Your task to perform on an android device: add a label to a message in the gmail app Image 0: 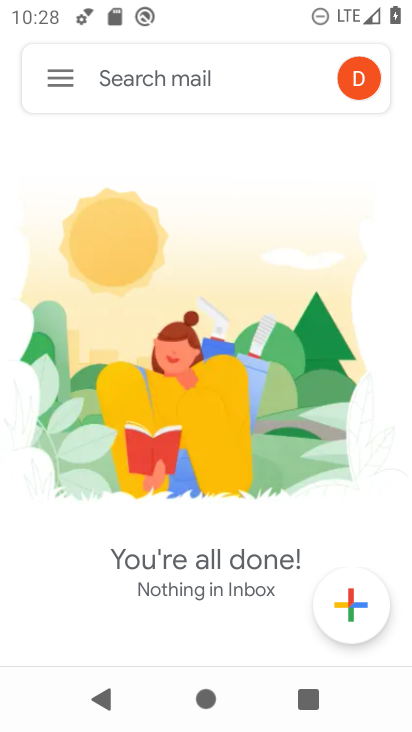
Step 0: click (76, 83)
Your task to perform on an android device: add a label to a message in the gmail app Image 1: 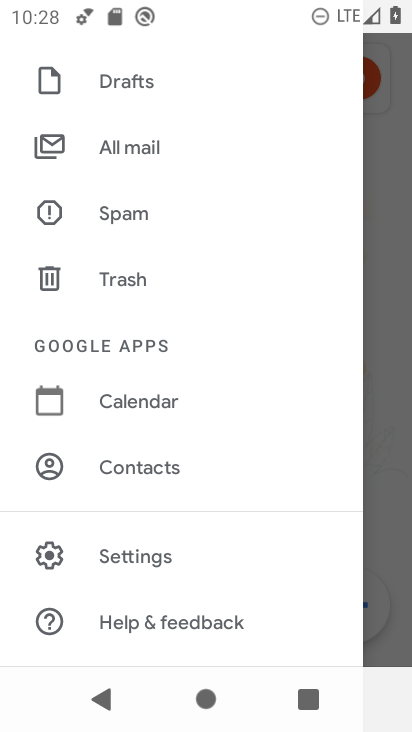
Step 1: click (120, 135)
Your task to perform on an android device: add a label to a message in the gmail app Image 2: 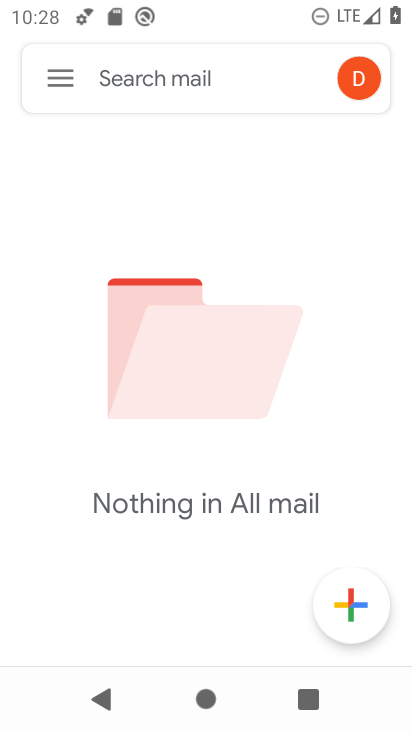
Step 2: click (51, 78)
Your task to perform on an android device: add a label to a message in the gmail app Image 3: 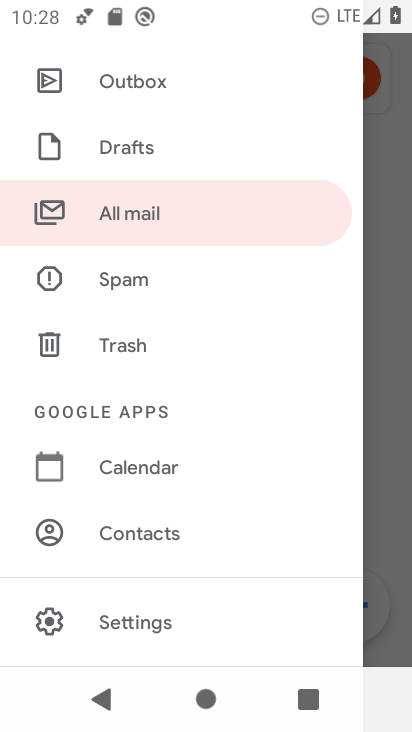
Step 3: drag from (195, 274) to (175, 426)
Your task to perform on an android device: add a label to a message in the gmail app Image 4: 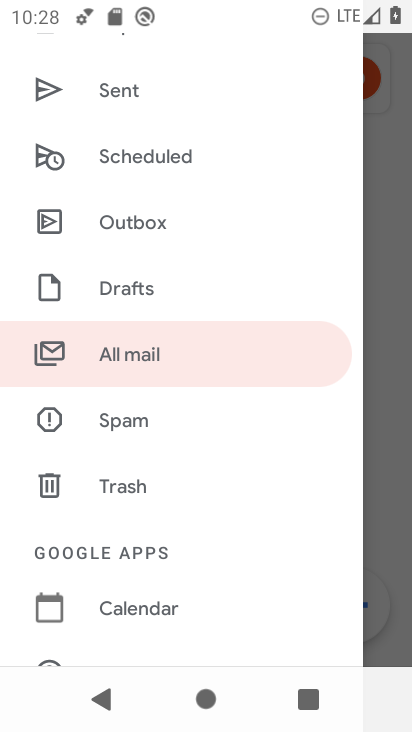
Step 4: drag from (206, 193) to (236, 412)
Your task to perform on an android device: add a label to a message in the gmail app Image 5: 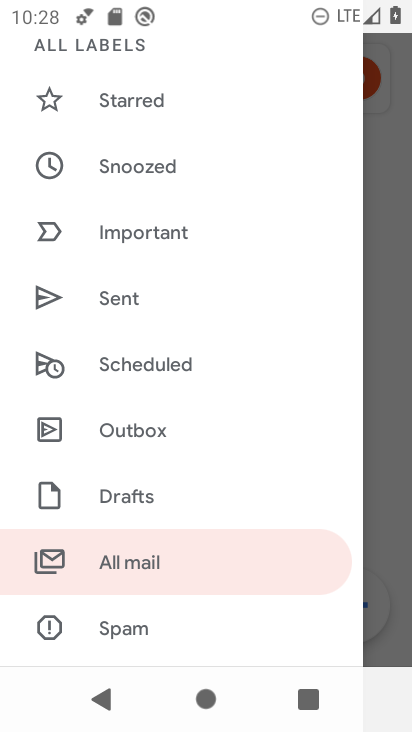
Step 5: drag from (208, 227) to (182, 420)
Your task to perform on an android device: add a label to a message in the gmail app Image 6: 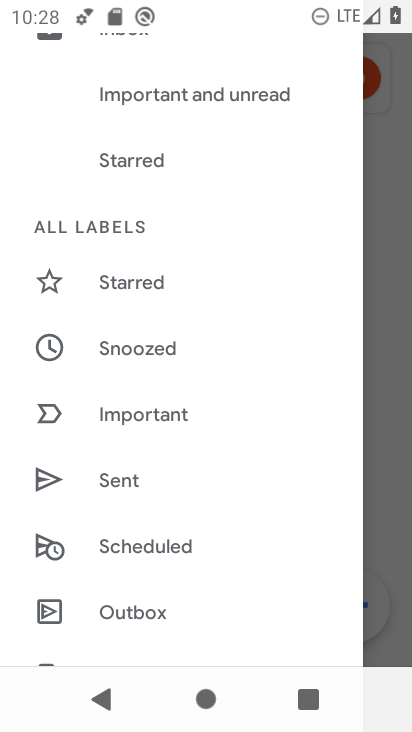
Step 6: drag from (176, 213) to (164, 390)
Your task to perform on an android device: add a label to a message in the gmail app Image 7: 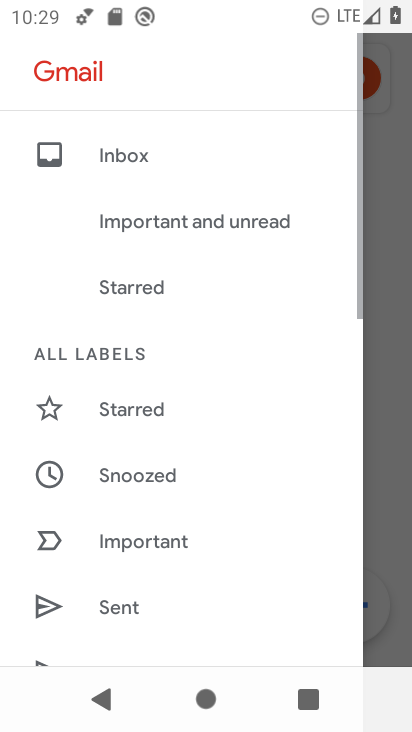
Step 7: click (117, 164)
Your task to perform on an android device: add a label to a message in the gmail app Image 8: 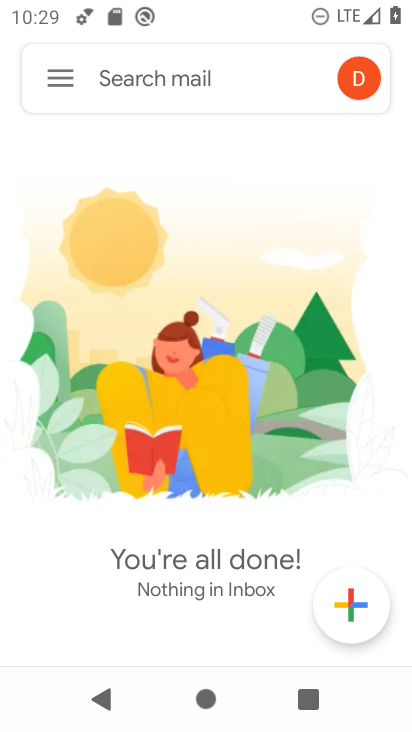
Step 8: task complete